Your task to perform on an android device: Open Youtube and go to the subscriptions tab Image 0: 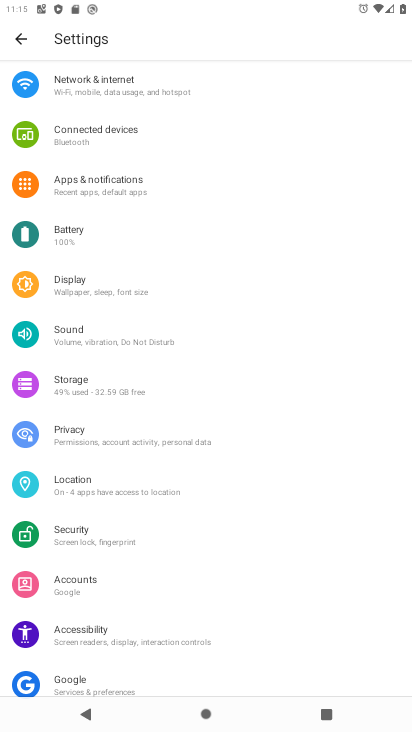
Step 0: press home button
Your task to perform on an android device: Open Youtube and go to the subscriptions tab Image 1: 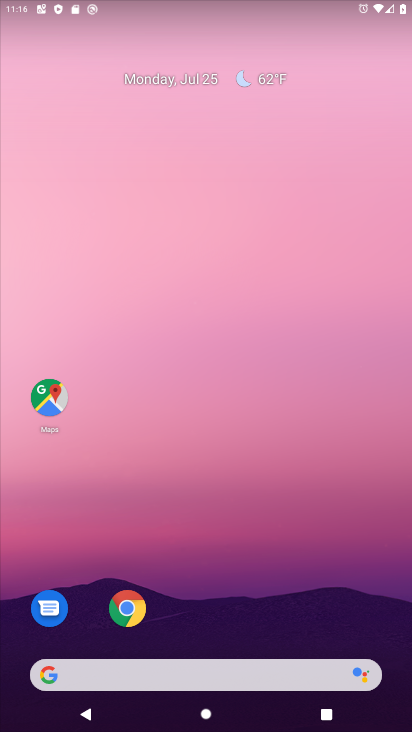
Step 1: drag from (239, 658) to (303, 2)
Your task to perform on an android device: Open Youtube and go to the subscriptions tab Image 2: 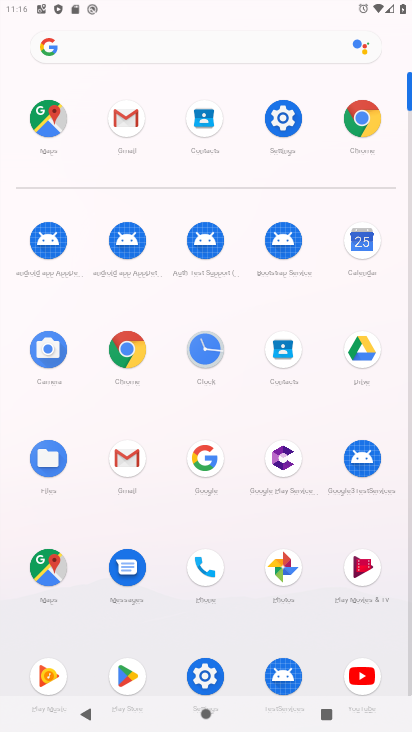
Step 2: click (371, 669)
Your task to perform on an android device: Open Youtube and go to the subscriptions tab Image 3: 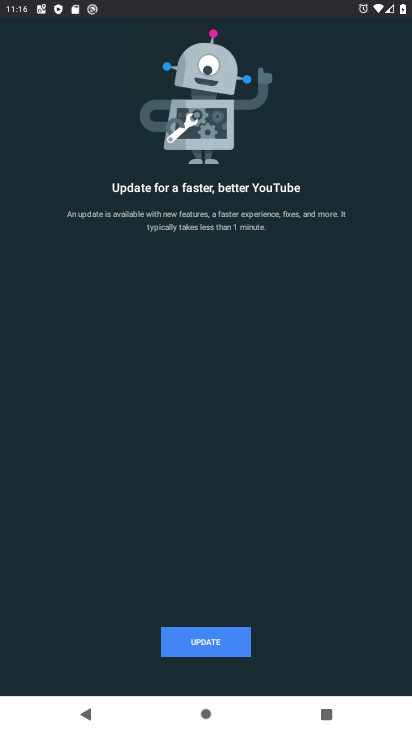
Step 3: click (228, 650)
Your task to perform on an android device: Open Youtube and go to the subscriptions tab Image 4: 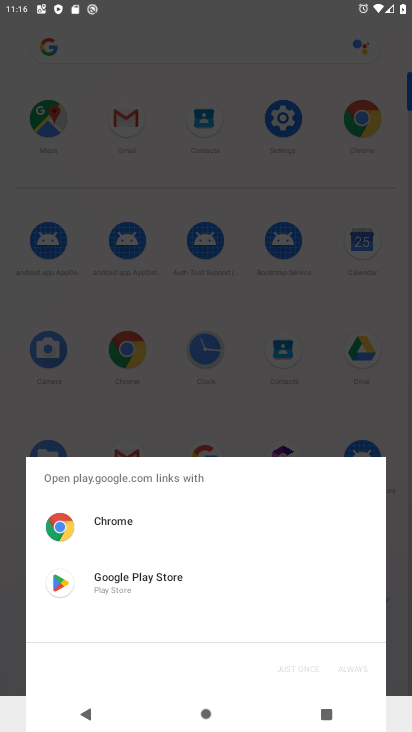
Step 4: click (150, 587)
Your task to perform on an android device: Open Youtube and go to the subscriptions tab Image 5: 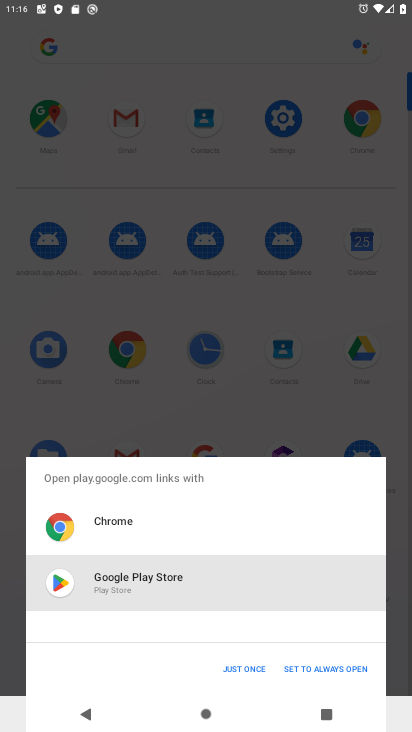
Step 5: click (249, 665)
Your task to perform on an android device: Open Youtube and go to the subscriptions tab Image 6: 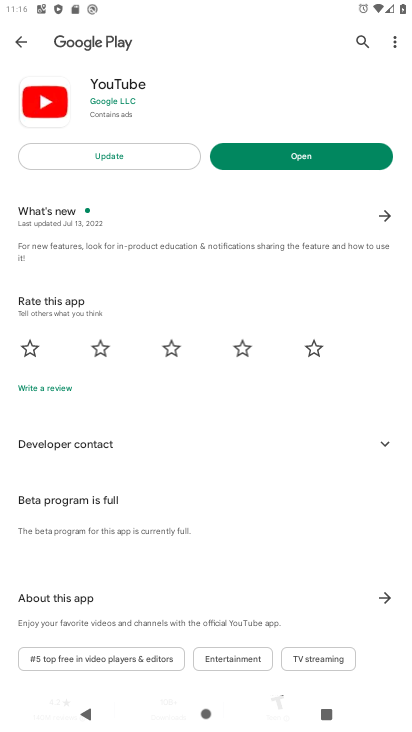
Step 6: click (131, 156)
Your task to perform on an android device: Open Youtube and go to the subscriptions tab Image 7: 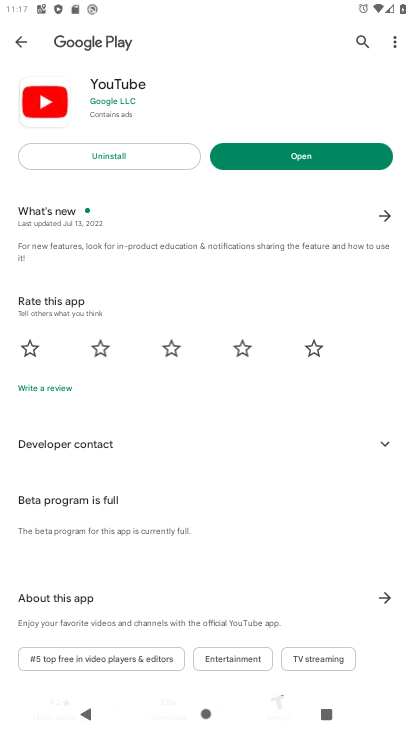
Step 7: click (274, 154)
Your task to perform on an android device: Open Youtube and go to the subscriptions tab Image 8: 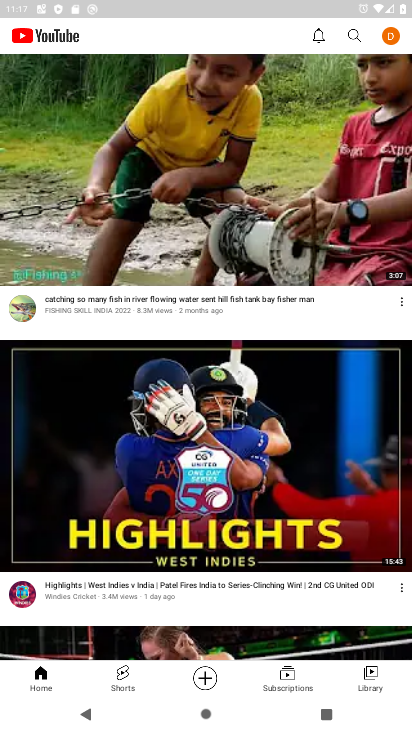
Step 8: click (300, 674)
Your task to perform on an android device: Open Youtube and go to the subscriptions tab Image 9: 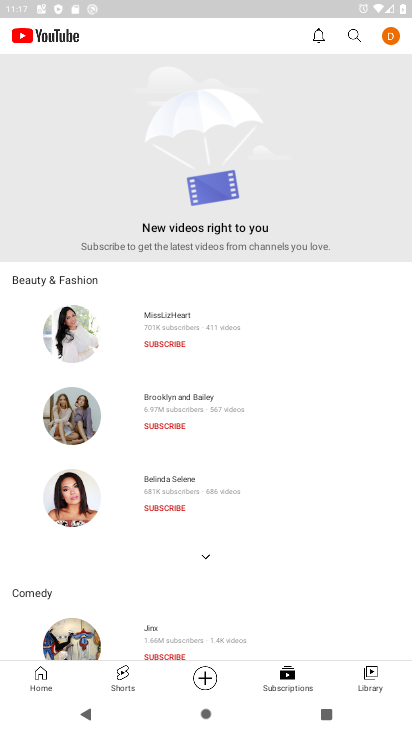
Step 9: task complete